Your task to perform on an android device: turn off priority inbox in the gmail app Image 0: 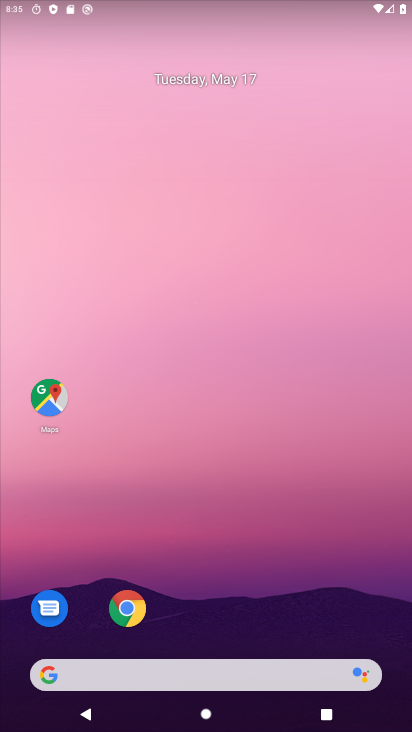
Step 0: drag from (352, 625) to (370, 123)
Your task to perform on an android device: turn off priority inbox in the gmail app Image 1: 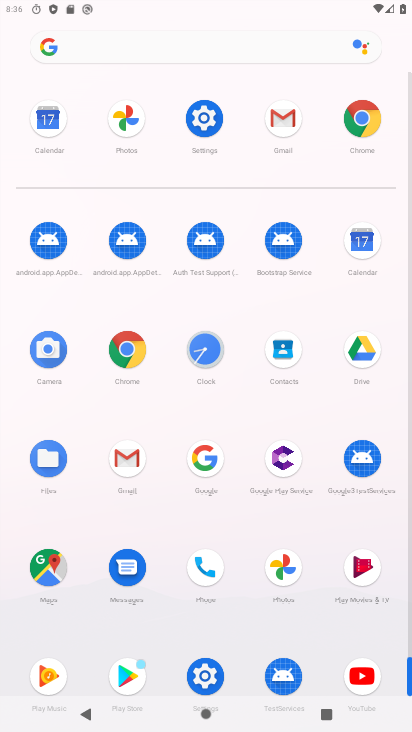
Step 1: click (130, 464)
Your task to perform on an android device: turn off priority inbox in the gmail app Image 2: 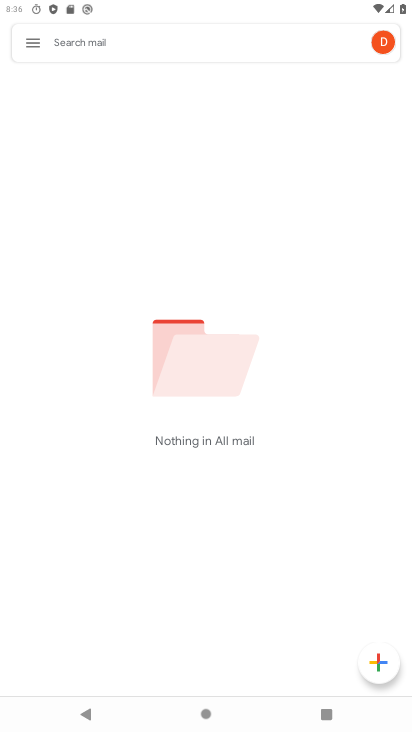
Step 2: click (33, 52)
Your task to perform on an android device: turn off priority inbox in the gmail app Image 3: 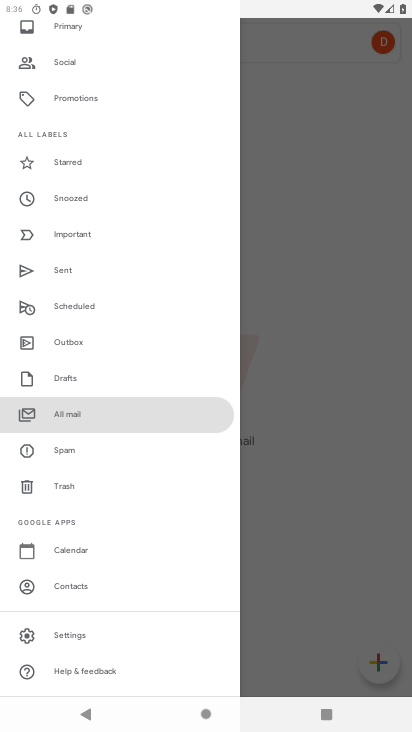
Step 3: click (104, 639)
Your task to perform on an android device: turn off priority inbox in the gmail app Image 4: 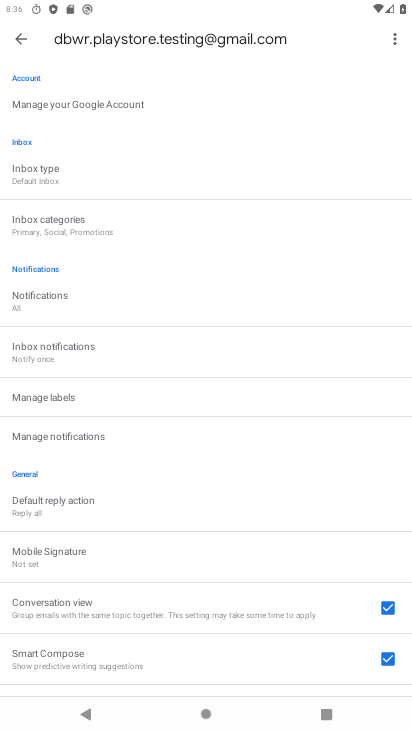
Step 4: click (81, 166)
Your task to perform on an android device: turn off priority inbox in the gmail app Image 5: 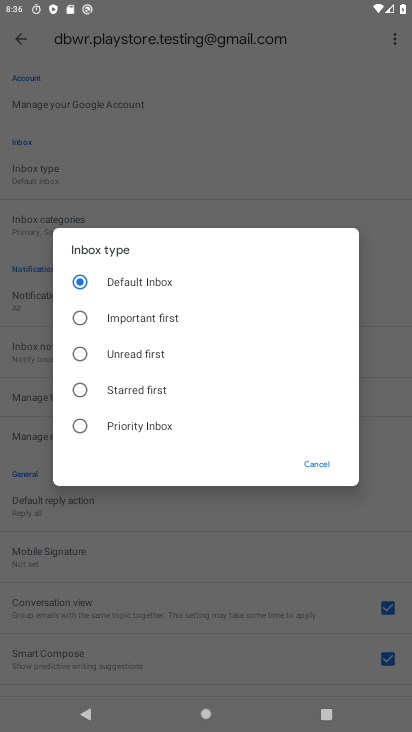
Step 5: task complete